Your task to perform on an android device: What is the recent news? Image 0: 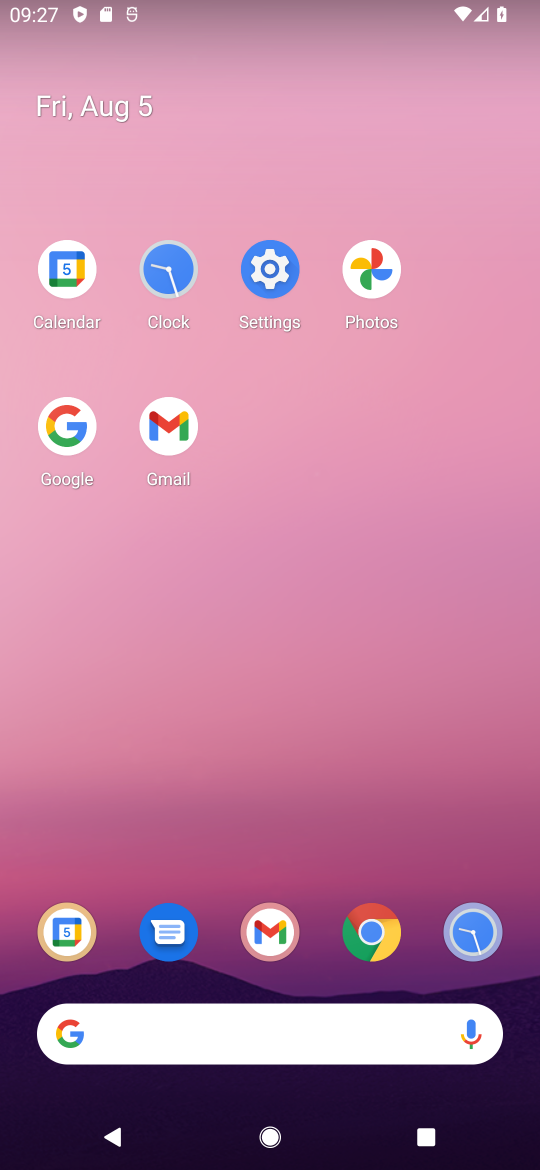
Step 0: click (57, 428)
Your task to perform on an android device: What is the recent news? Image 1: 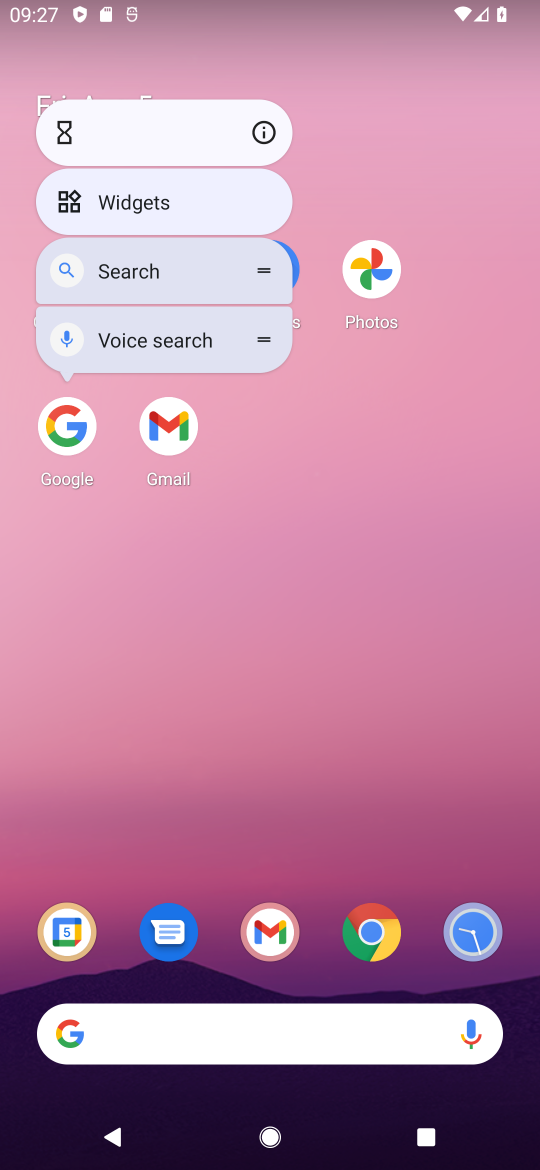
Step 1: click (62, 434)
Your task to perform on an android device: What is the recent news? Image 2: 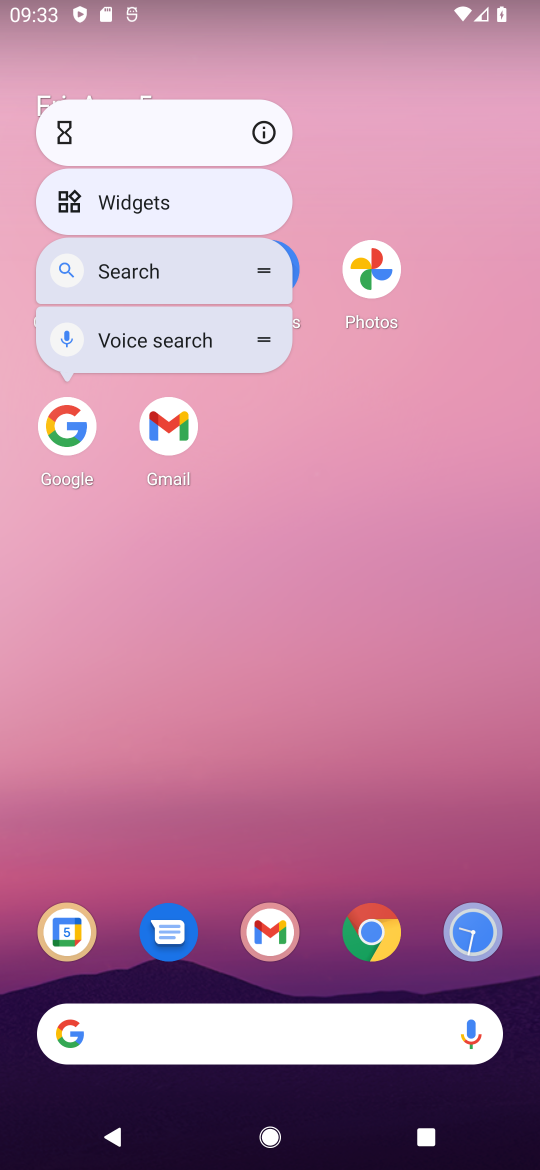
Step 2: click (56, 431)
Your task to perform on an android device: What is the recent news? Image 3: 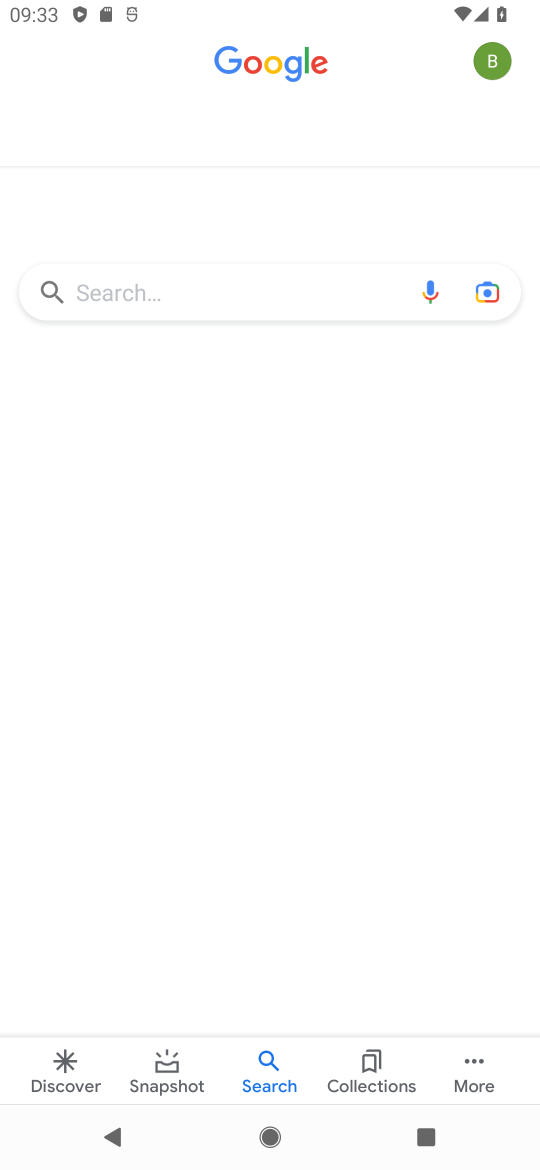
Step 3: press home button
Your task to perform on an android device: What is the recent news? Image 4: 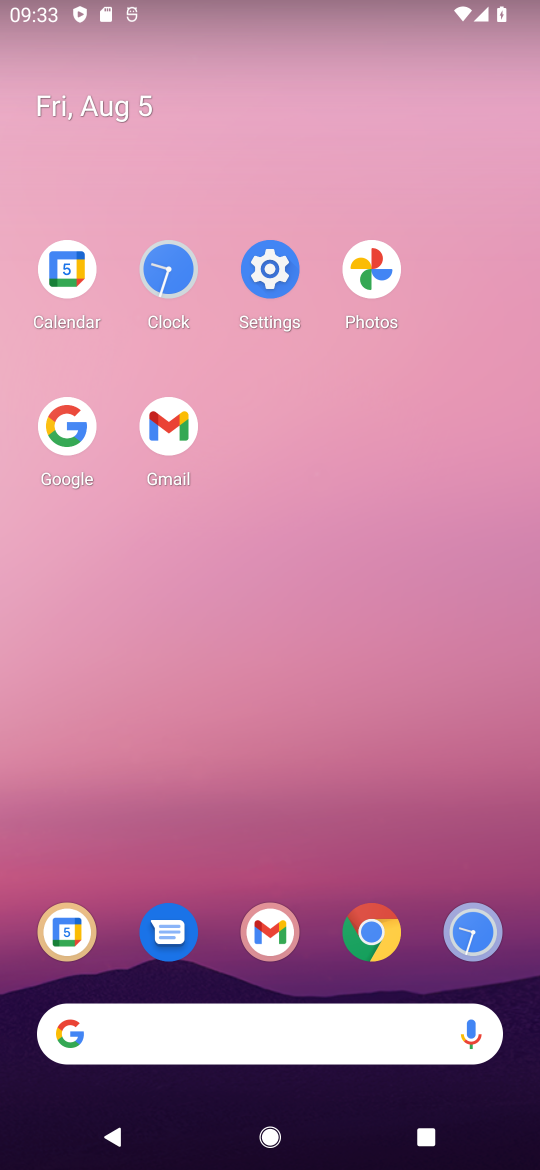
Step 4: click (55, 431)
Your task to perform on an android device: What is the recent news? Image 5: 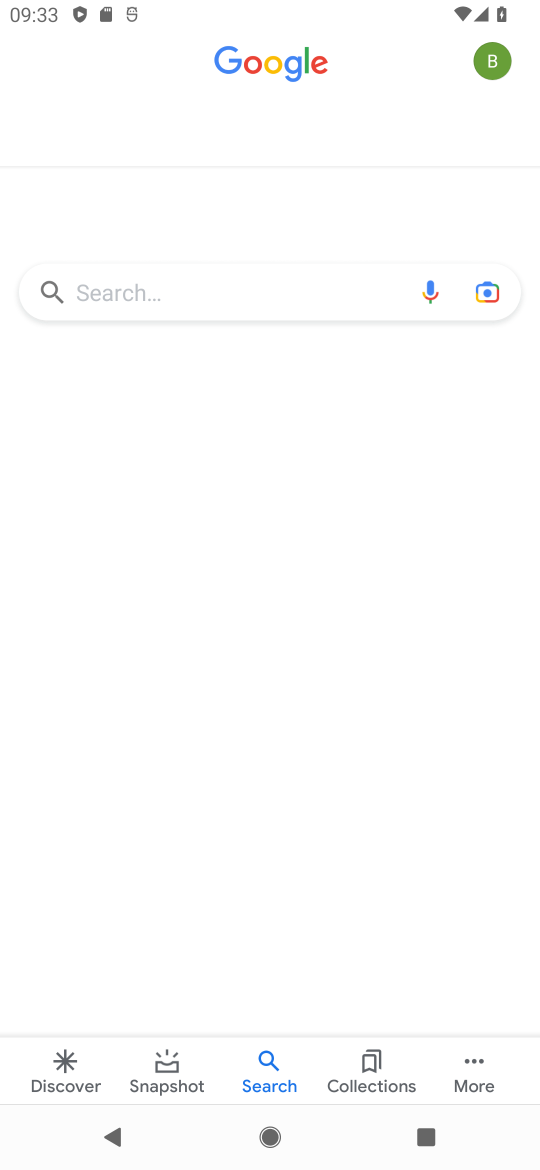
Step 5: click (116, 303)
Your task to perform on an android device: What is the recent news? Image 6: 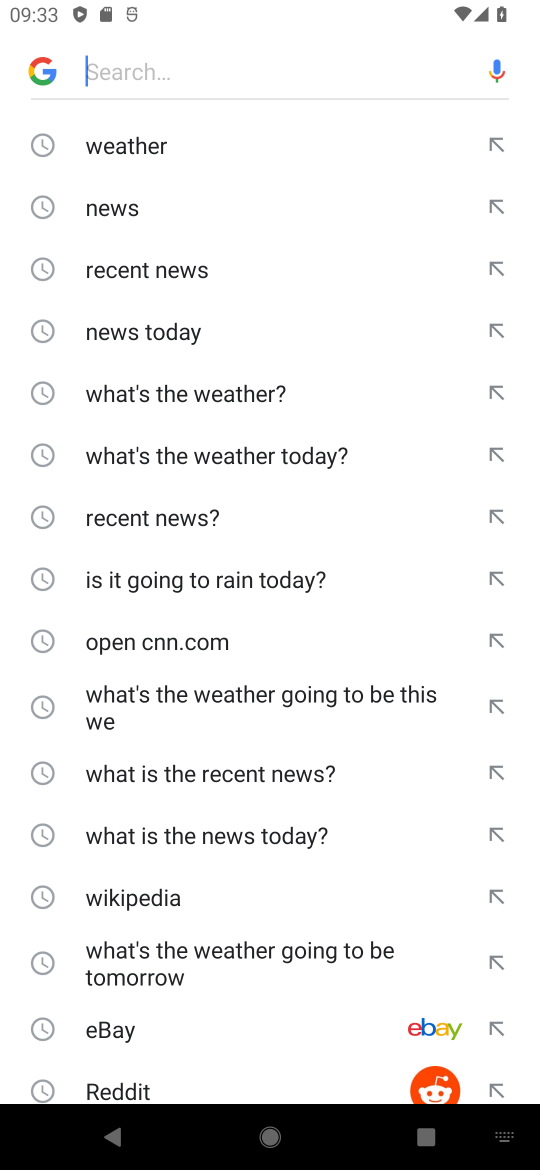
Step 6: click (171, 266)
Your task to perform on an android device: What is the recent news? Image 7: 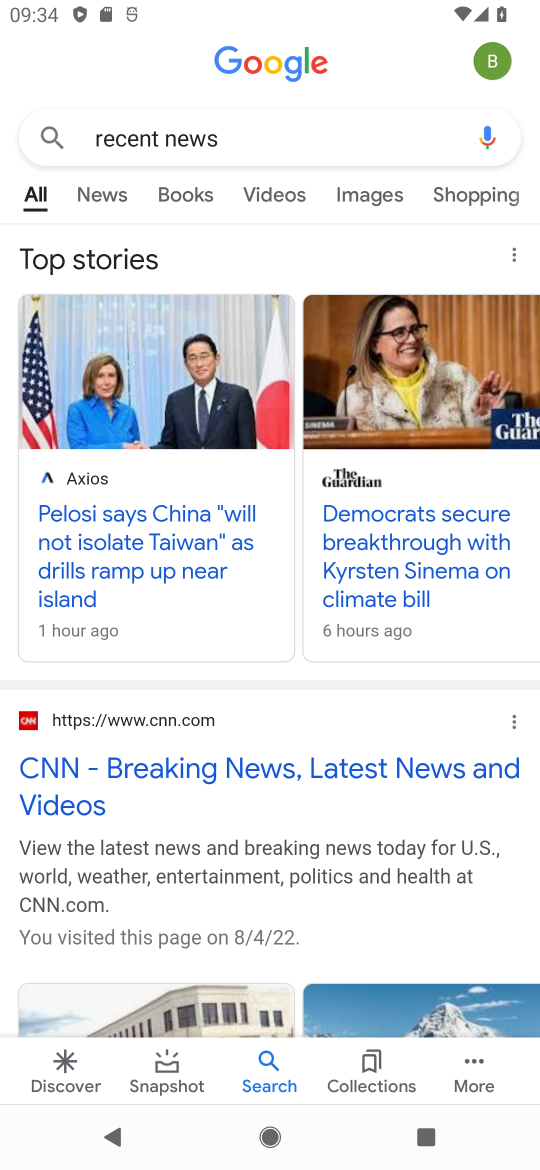
Step 7: task complete